Your task to perform on an android device: clear all cookies in the chrome app Image 0: 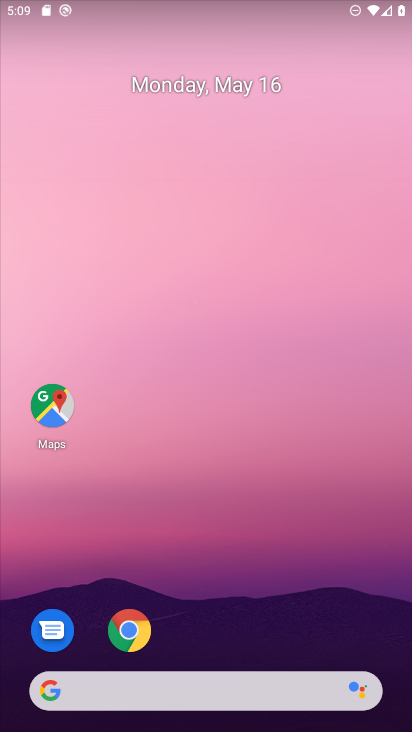
Step 0: press home button
Your task to perform on an android device: clear all cookies in the chrome app Image 1: 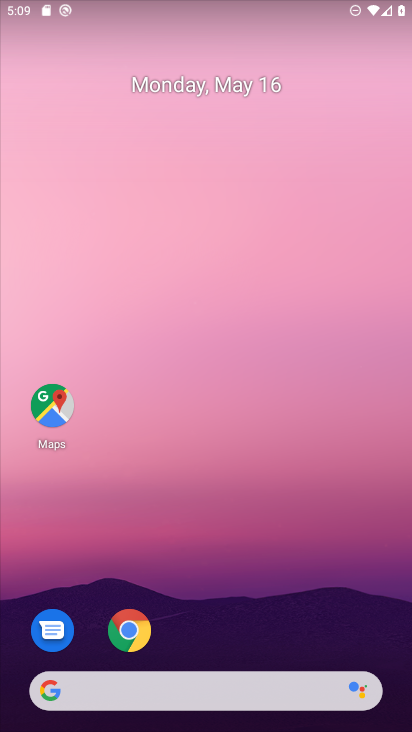
Step 1: drag from (298, 647) to (311, 703)
Your task to perform on an android device: clear all cookies in the chrome app Image 2: 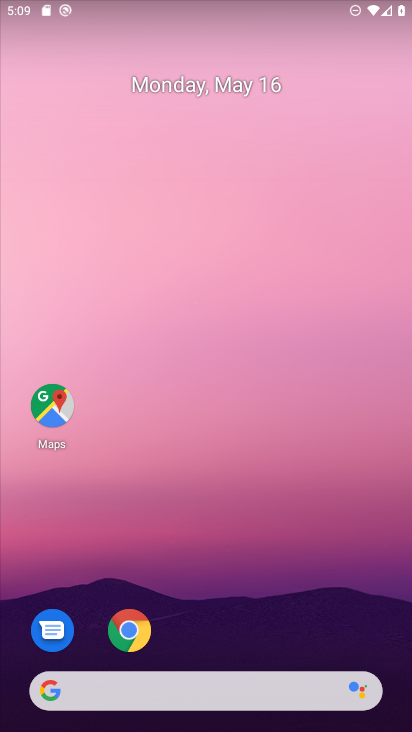
Step 2: click (123, 624)
Your task to perform on an android device: clear all cookies in the chrome app Image 3: 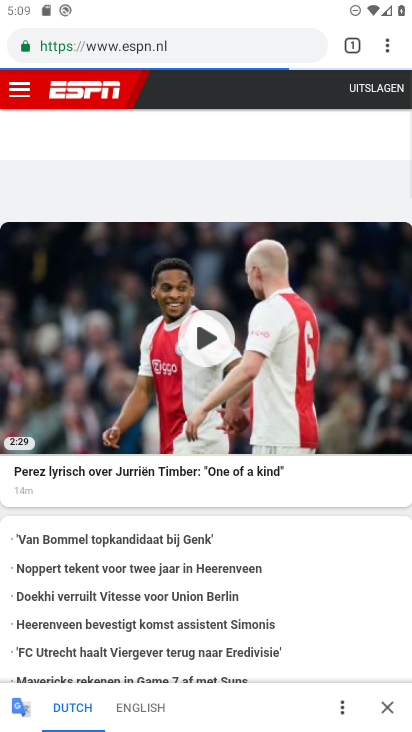
Step 3: drag from (394, 47) to (283, 515)
Your task to perform on an android device: clear all cookies in the chrome app Image 4: 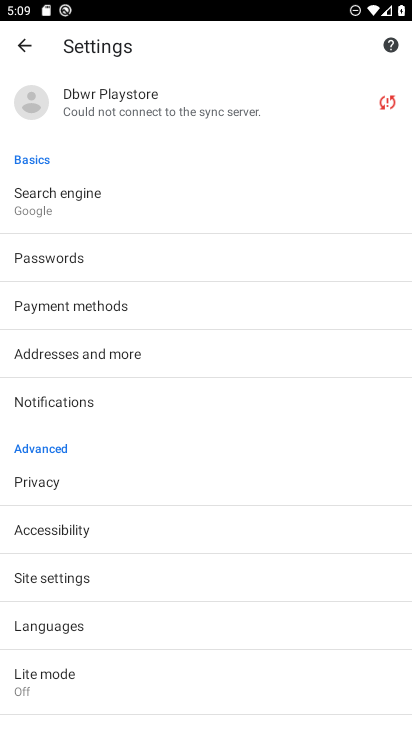
Step 4: click (68, 500)
Your task to perform on an android device: clear all cookies in the chrome app Image 5: 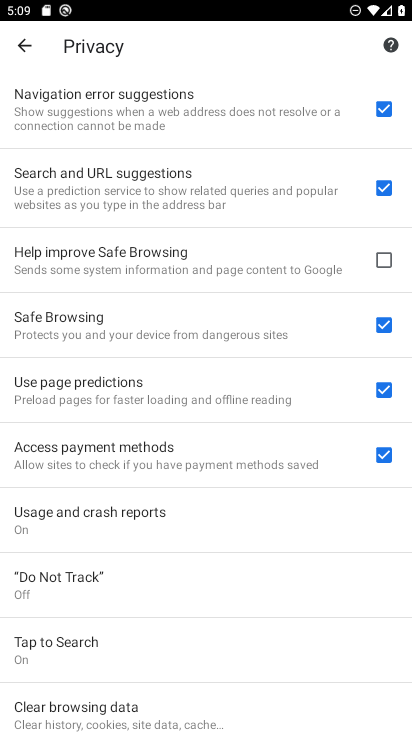
Step 5: drag from (68, 500) to (77, 224)
Your task to perform on an android device: clear all cookies in the chrome app Image 6: 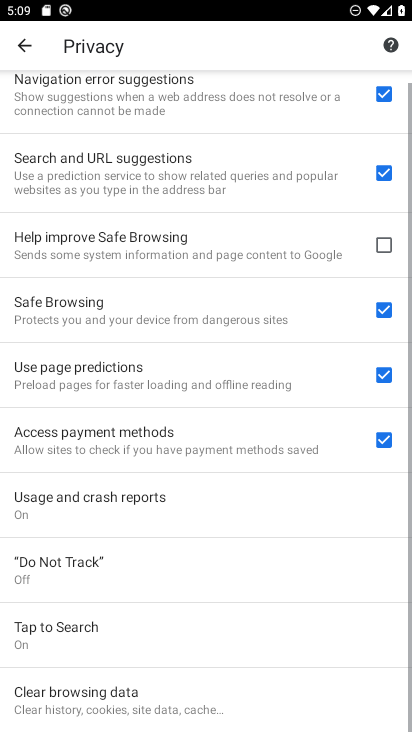
Step 6: drag from (93, 406) to (109, 275)
Your task to perform on an android device: clear all cookies in the chrome app Image 7: 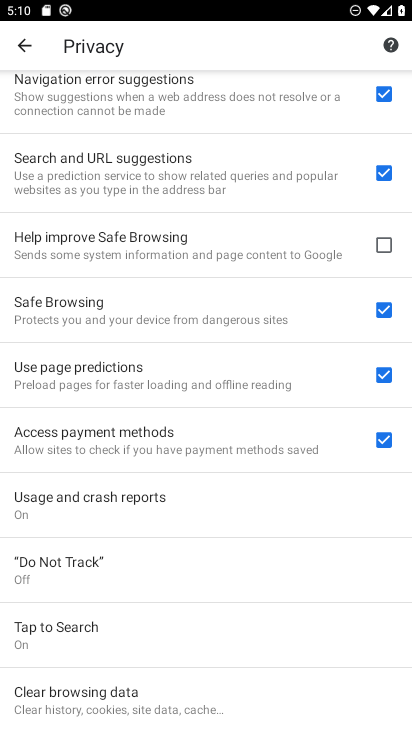
Step 7: click (88, 704)
Your task to perform on an android device: clear all cookies in the chrome app Image 8: 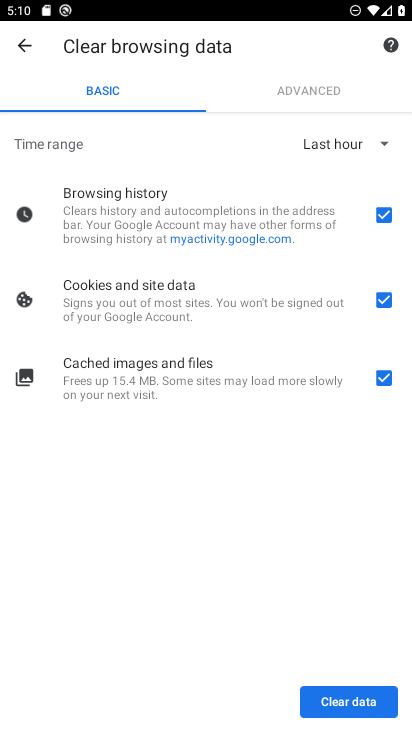
Step 8: click (331, 719)
Your task to perform on an android device: clear all cookies in the chrome app Image 9: 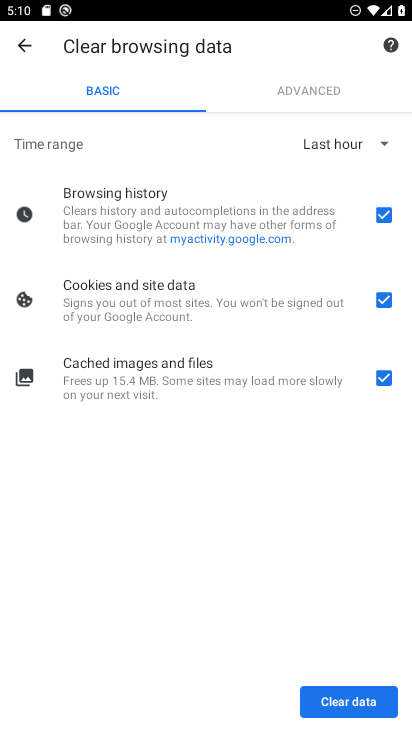
Step 9: click (331, 702)
Your task to perform on an android device: clear all cookies in the chrome app Image 10: 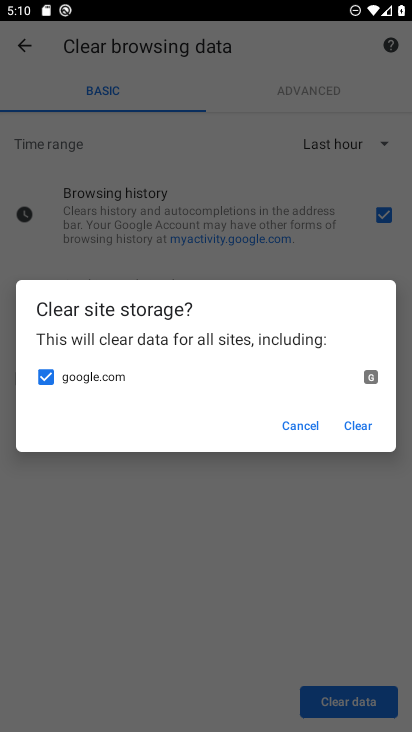
Step 10: click (331, 702)
Your task to perform on an android device: clear all cookies in the chrome app Image 11: 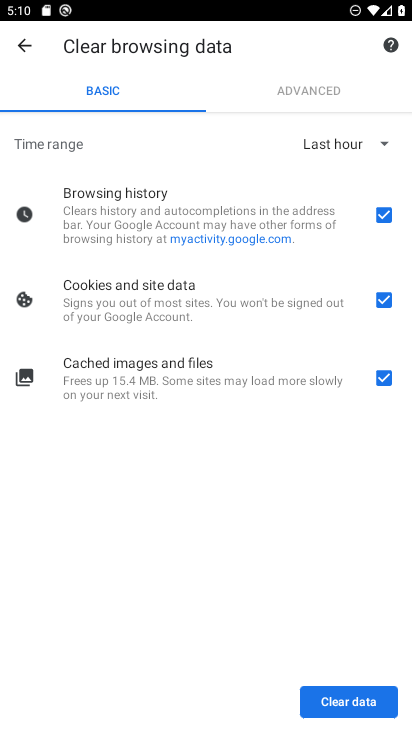
Step 11: click (348, 434)
Your task to perform on an android device: clear all cookies in the chrome app Image 12: 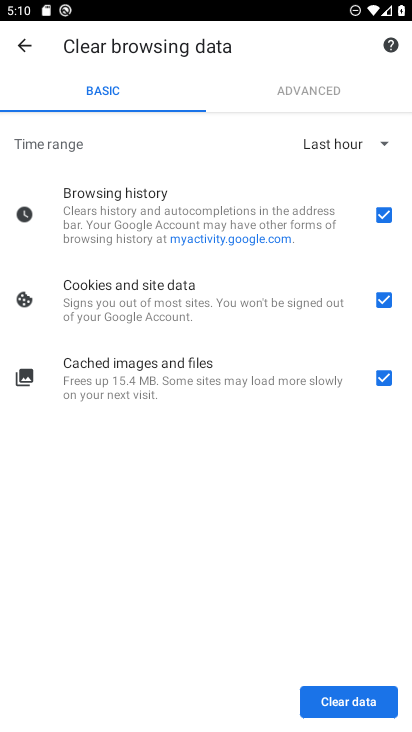
Step 12: click (326, 685)
Your task to perform on an android device: clear all cookies in the chrome app Image 13: 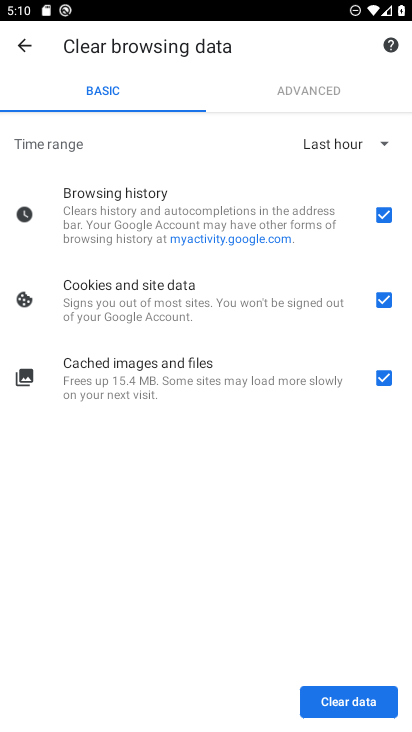
Step 13: click (322, 695)
Your task to perform on an android device: clear all cookies in the chrome app Image 14: 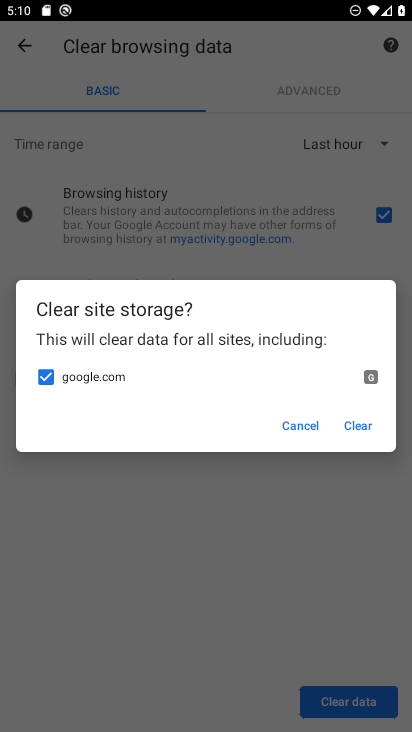
Step 14: click (341, 433)
Your task to perform on an android device: clear all cookies in the chrome app Image 15: 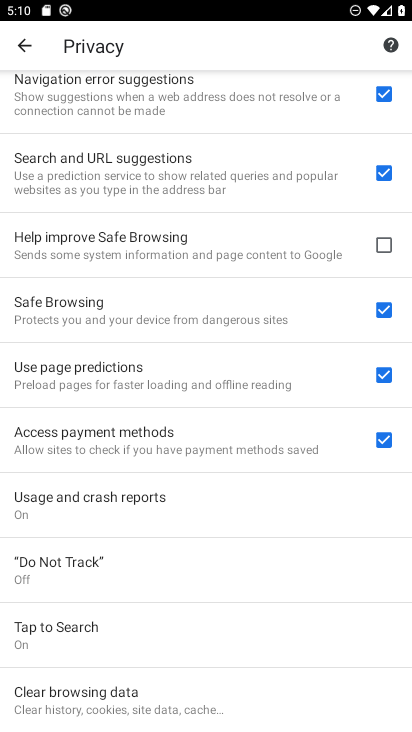
Step 15: task complete